Your task to perform on an android device: Open calendar and show me the fourth week of next month Image 0: 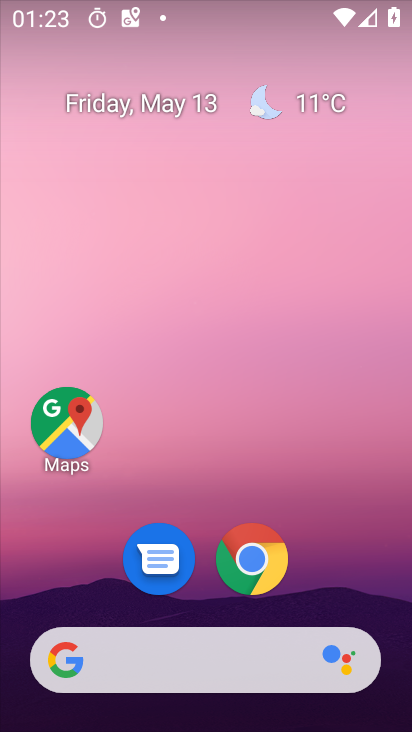
Step 0: drag from (332, 561) to (305, 85)
Your task to perform on an android device: Open calendar and show me the fourth week of next month Image 1: 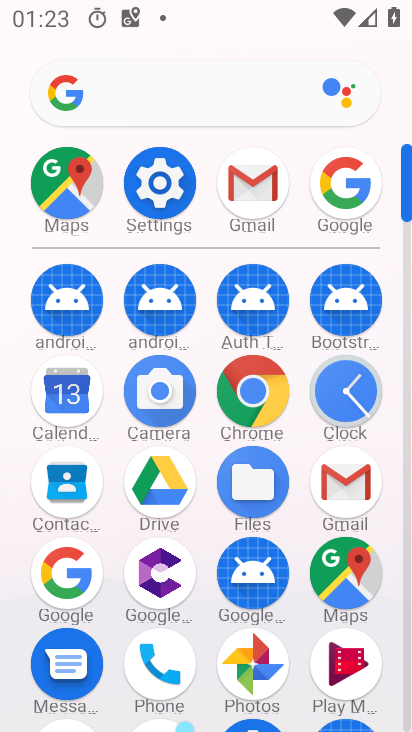
Step 1: click (59, 398)
Your task to perform on an android device: Open calendar and show me the fourth week of next month Image 2: 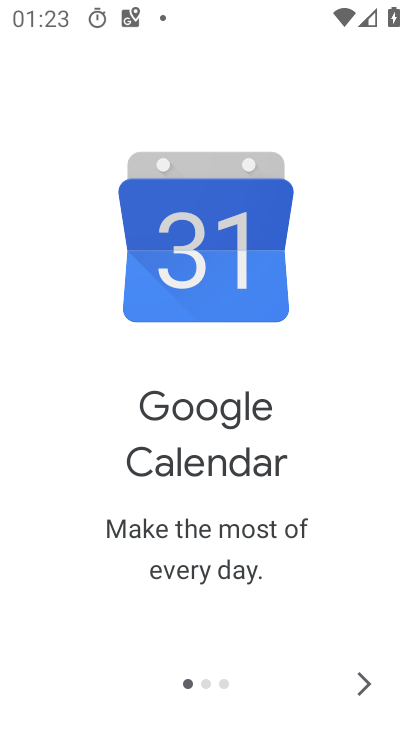
Step 2: click (350, 677)
Your task to perform on an android device: Open calendar and show me the fourth week of next month Image 3: 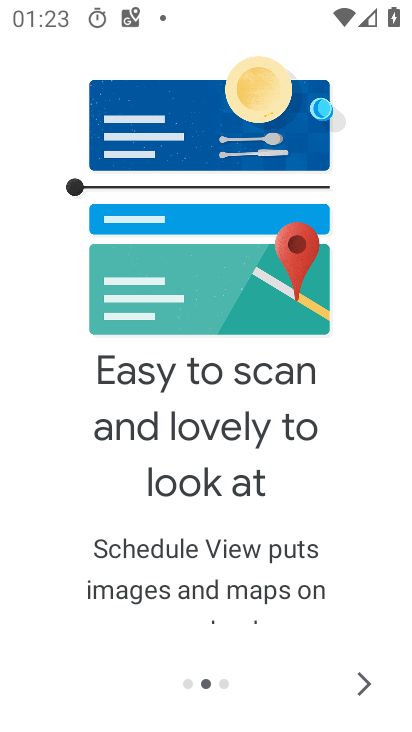
Step 3: click (350, 677)
Your task to perform on an android device: Open calendar and show me the fourth week of next month Image 4: 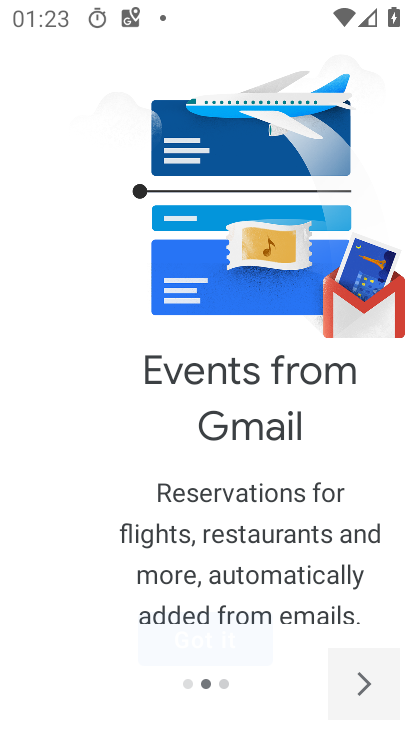
Step 4: click (350, 677)
Your task to perform on an android device: Open calendar and show me the fourth week of next month Image 5: 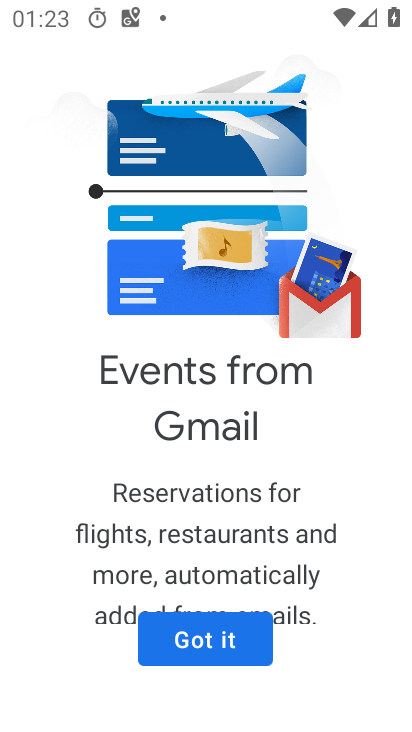
Step 5: click (179, 645)
Your task to perform on an android device: Open calendar and show me the fourth week of next month Image 6: 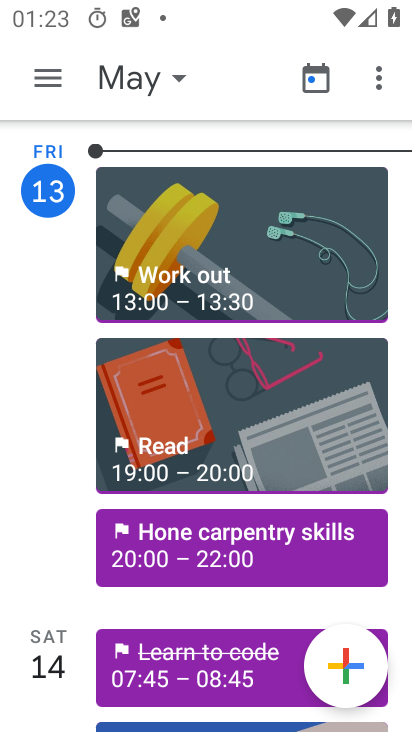
Step 6: click (157, 83)
Your task to perform on an android device: Open calendar and show me the fourth week of next month Image 7: 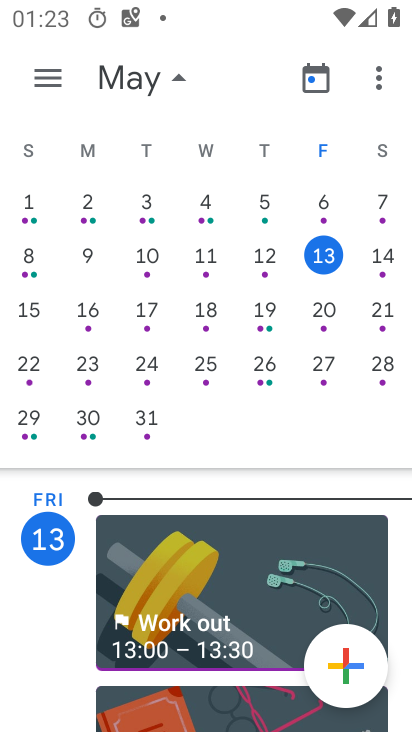
Step 7: drag from (370, 403) to (17, 397)
Your task to perform on an android device: Open calendar and show me the fourth week of next month Image 8: 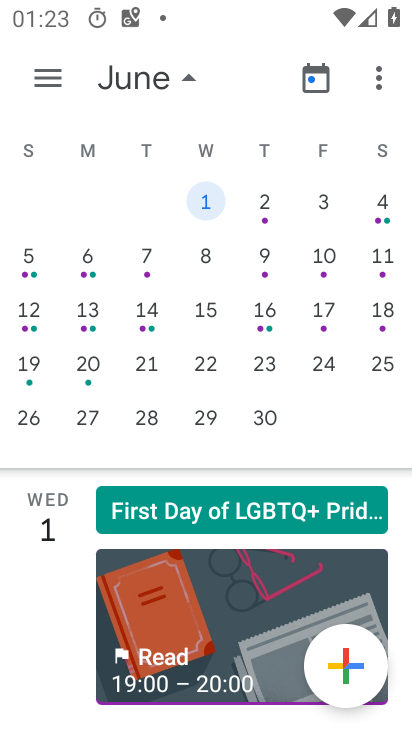
Step 8: click (206, 363)
Your task to perform on an android device: Open calendar and show me the fourth week of next month Image 9: 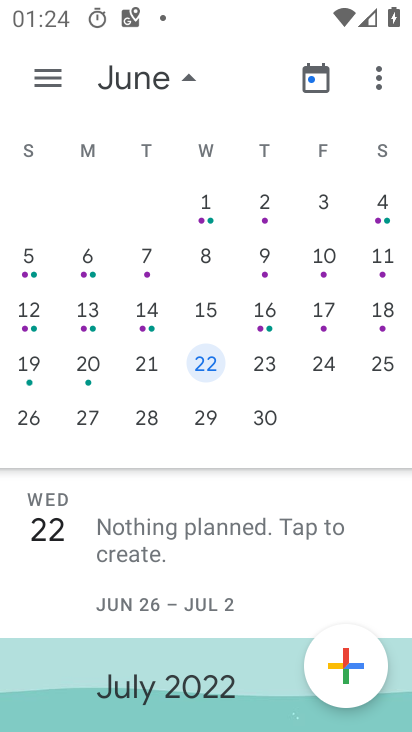
Step 9: task complete